Your task to perform on an android device: open app "Pinterest" Image 0: 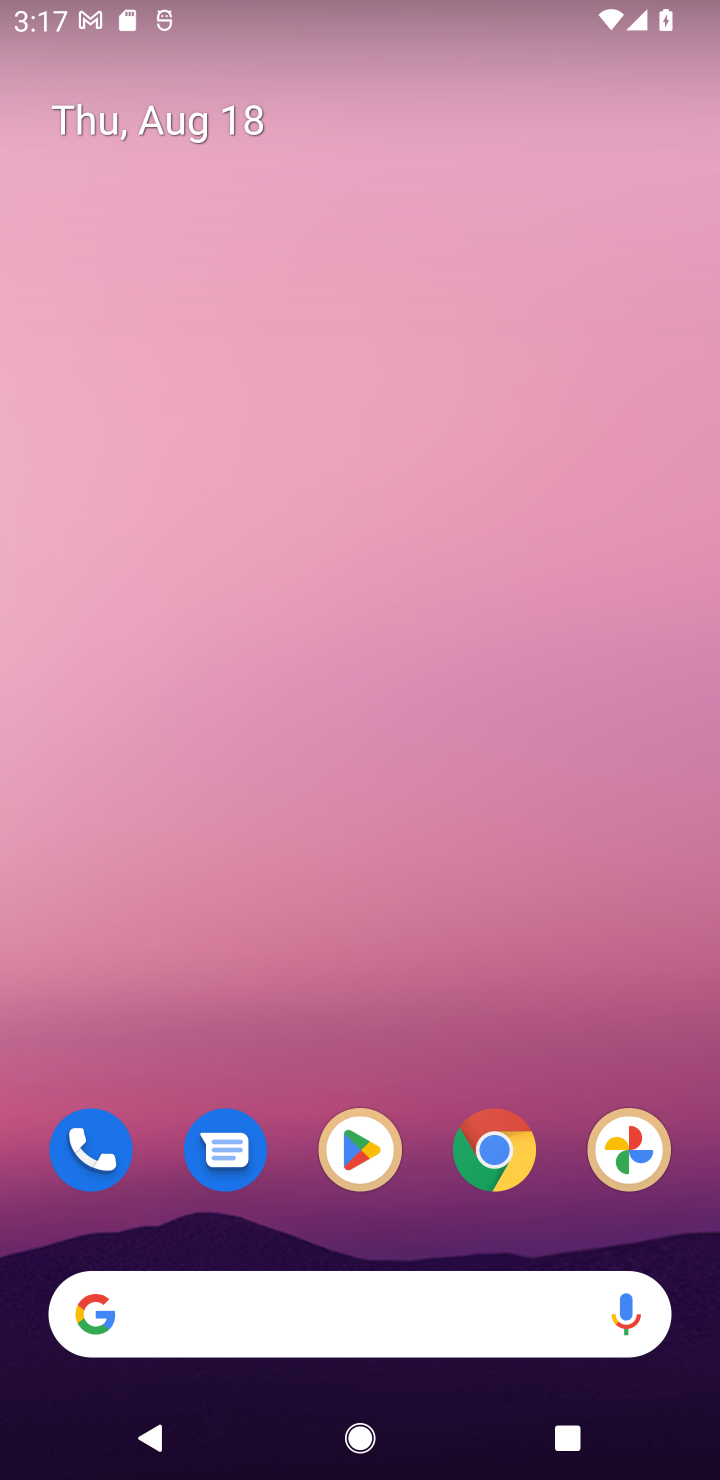
Step 0: click (363, 1144)
Your task to perform on an android device: open app "Pinterest" Image 1: 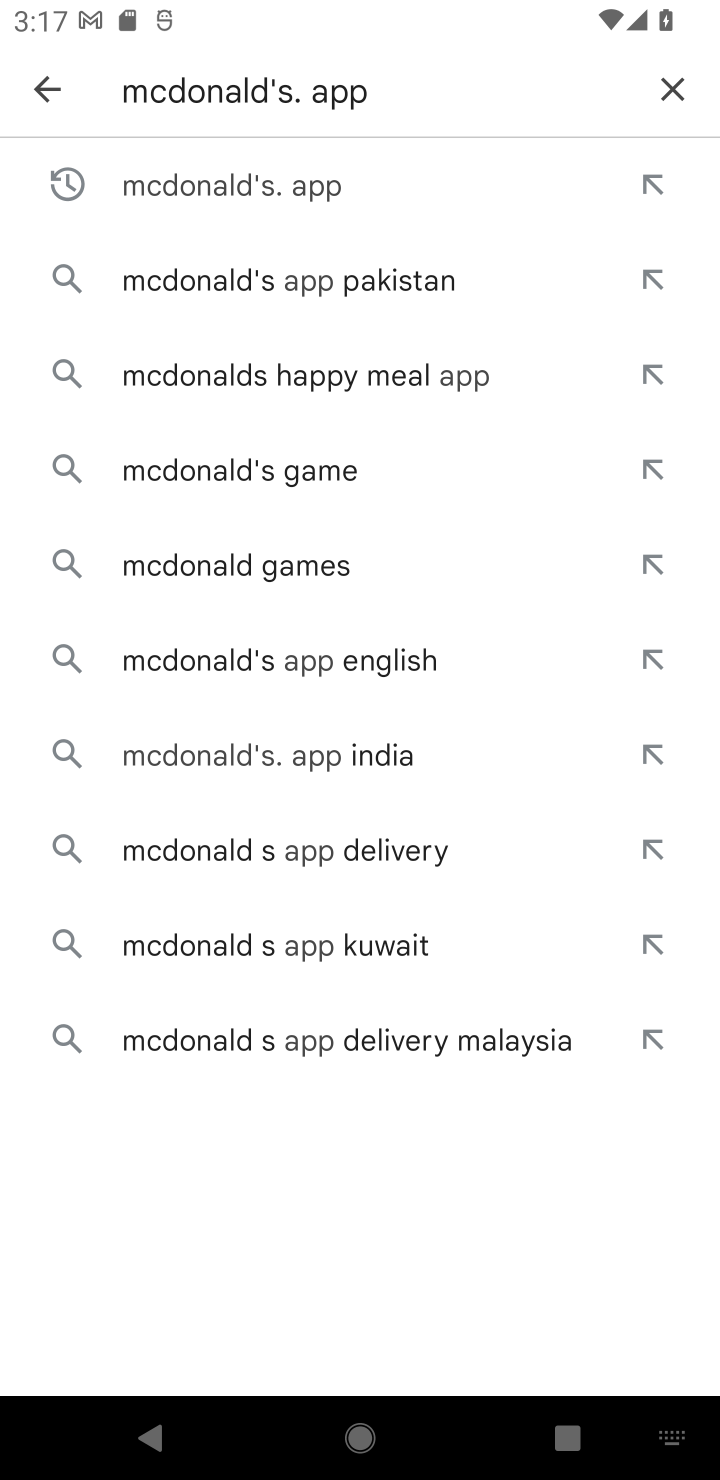
Step 1: click (673, 79)
Your task to perform on an android device: open app "Pinterest" Image 2: 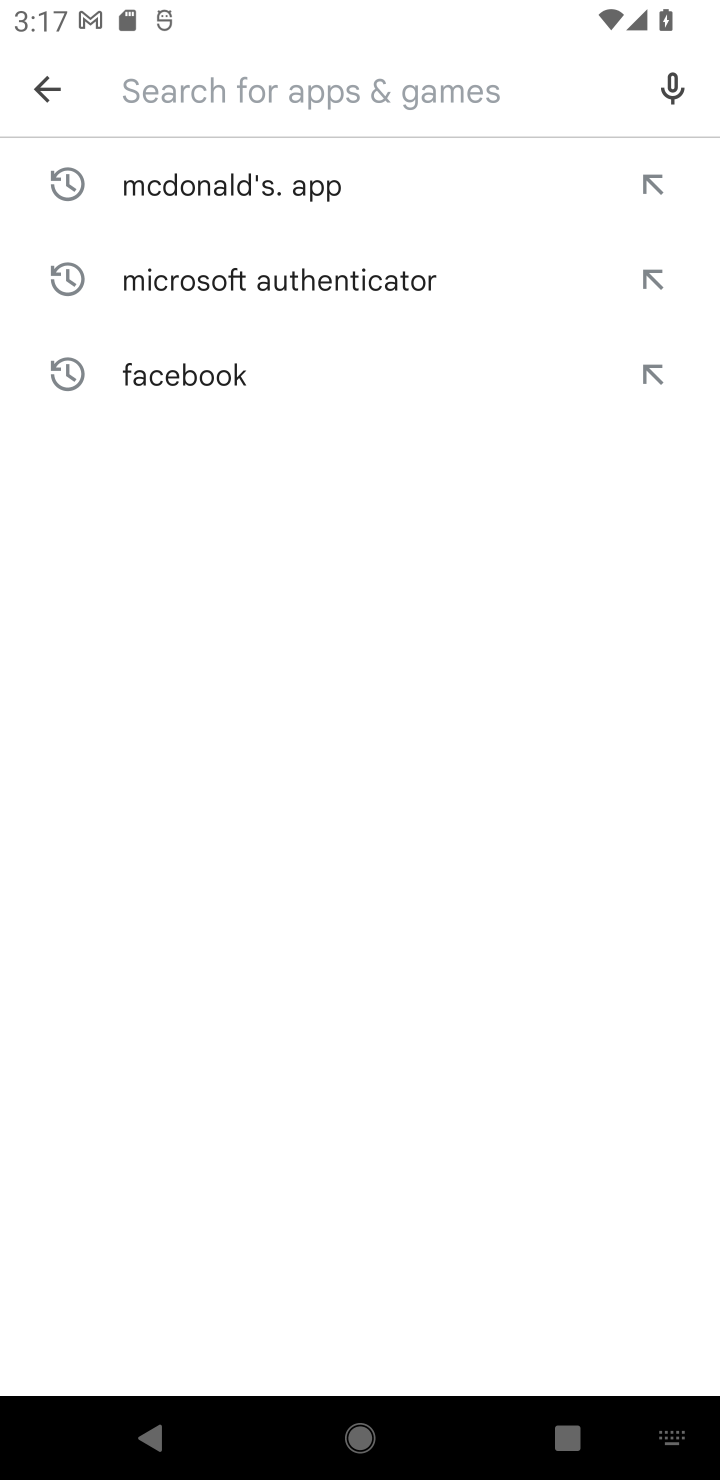
Step 2: type "Pinterest"
Your task to perform on an android device: open app "Pinterest" Image 3: 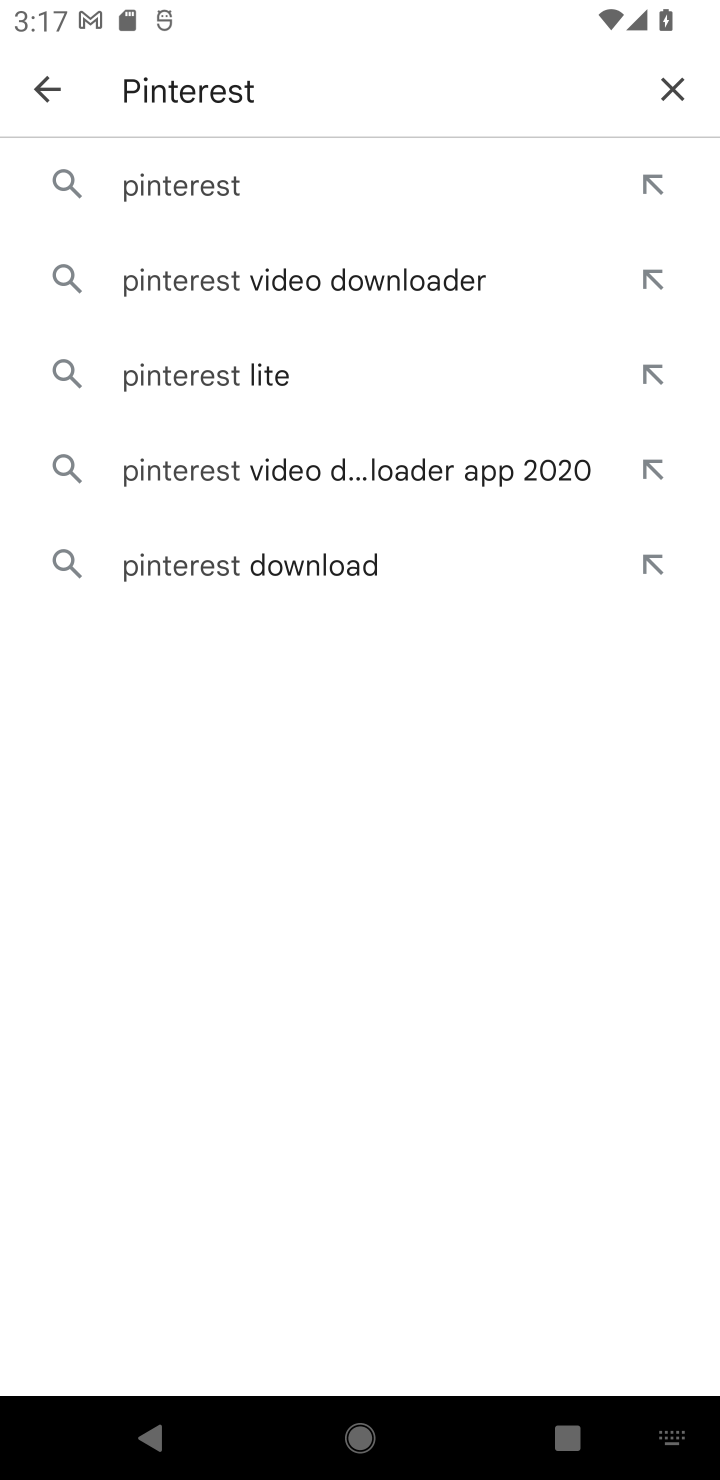
Step 3: click (189, 178)
Your task to perform on an android device: open app "Pinterest" Image 4: 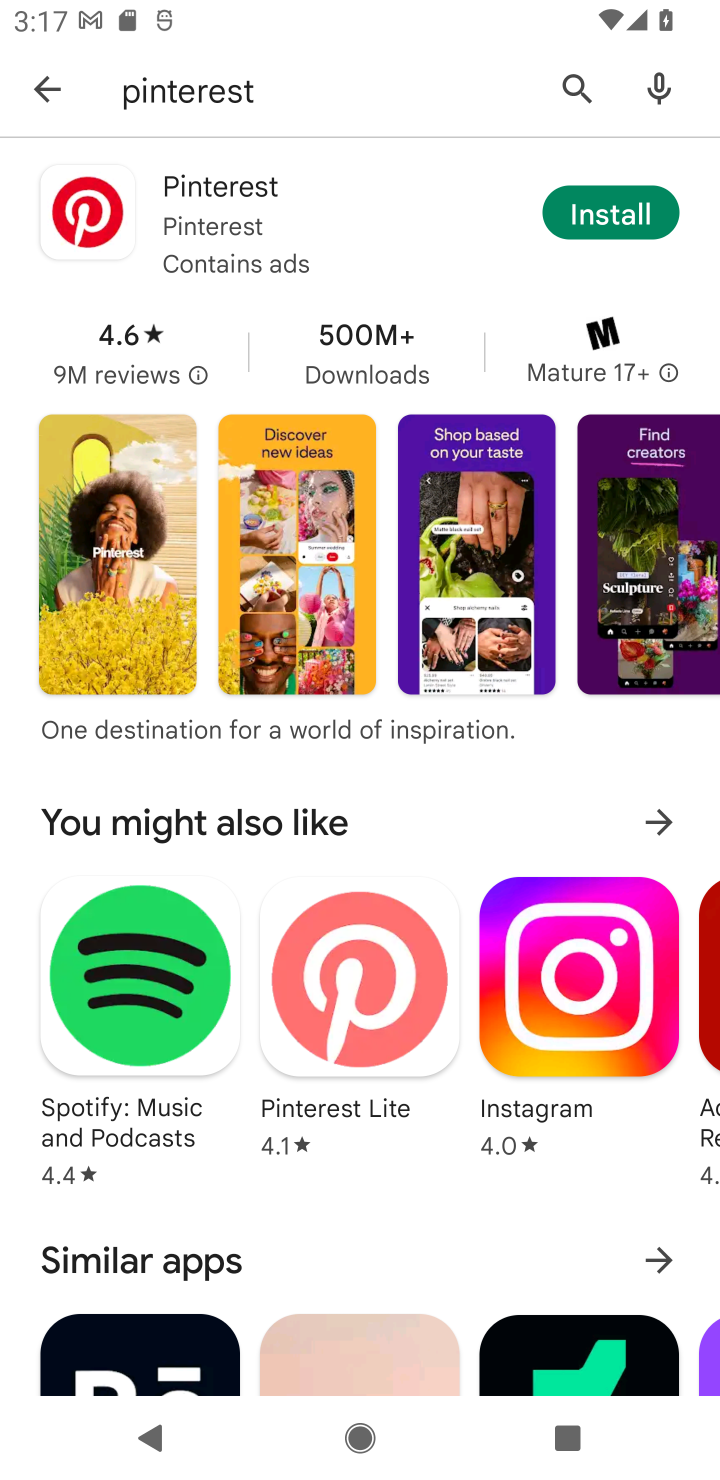
Step 4: task complete